Your task to perform on an android device: see creations saved in the google photos Image 0: 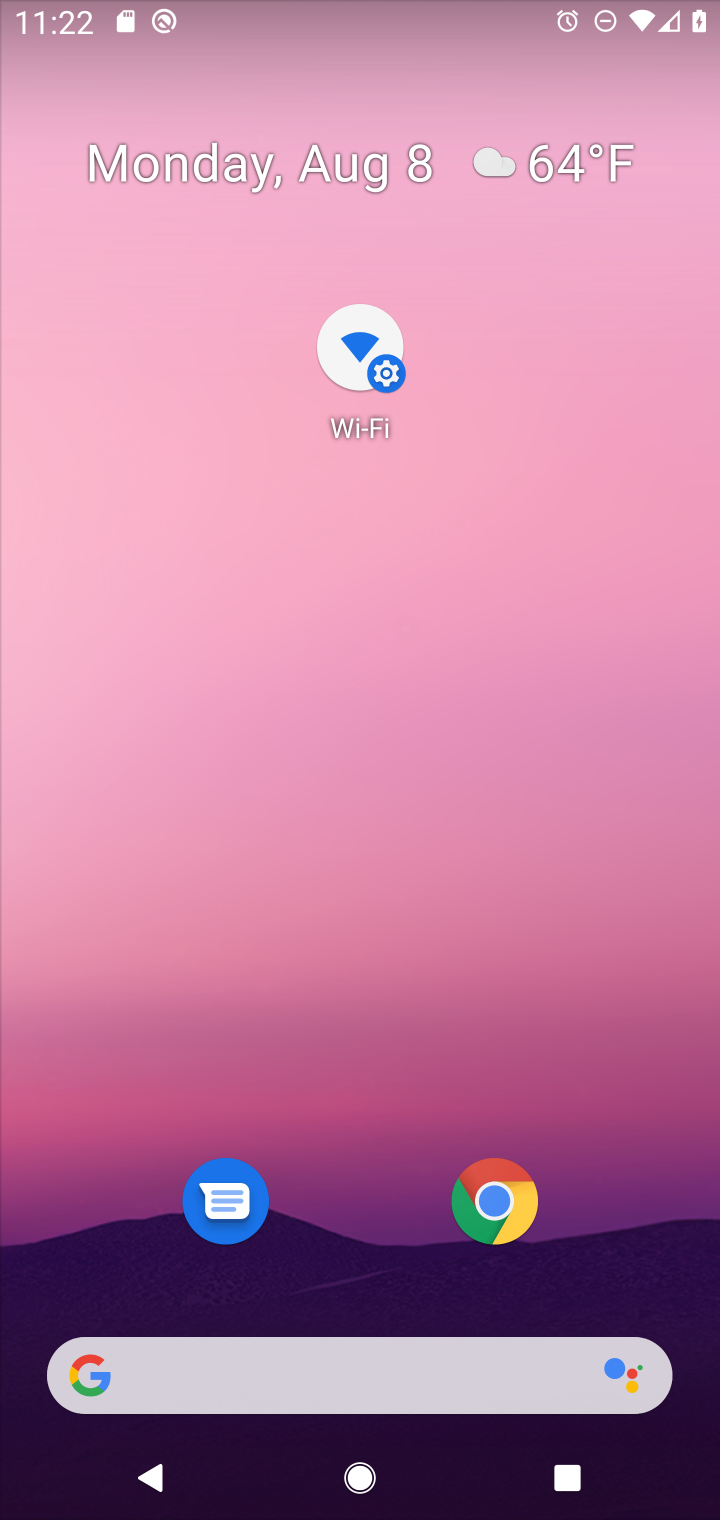
Step 0: press home button
Your task to perform on an android device: see creations saved in the google photos Image 1: 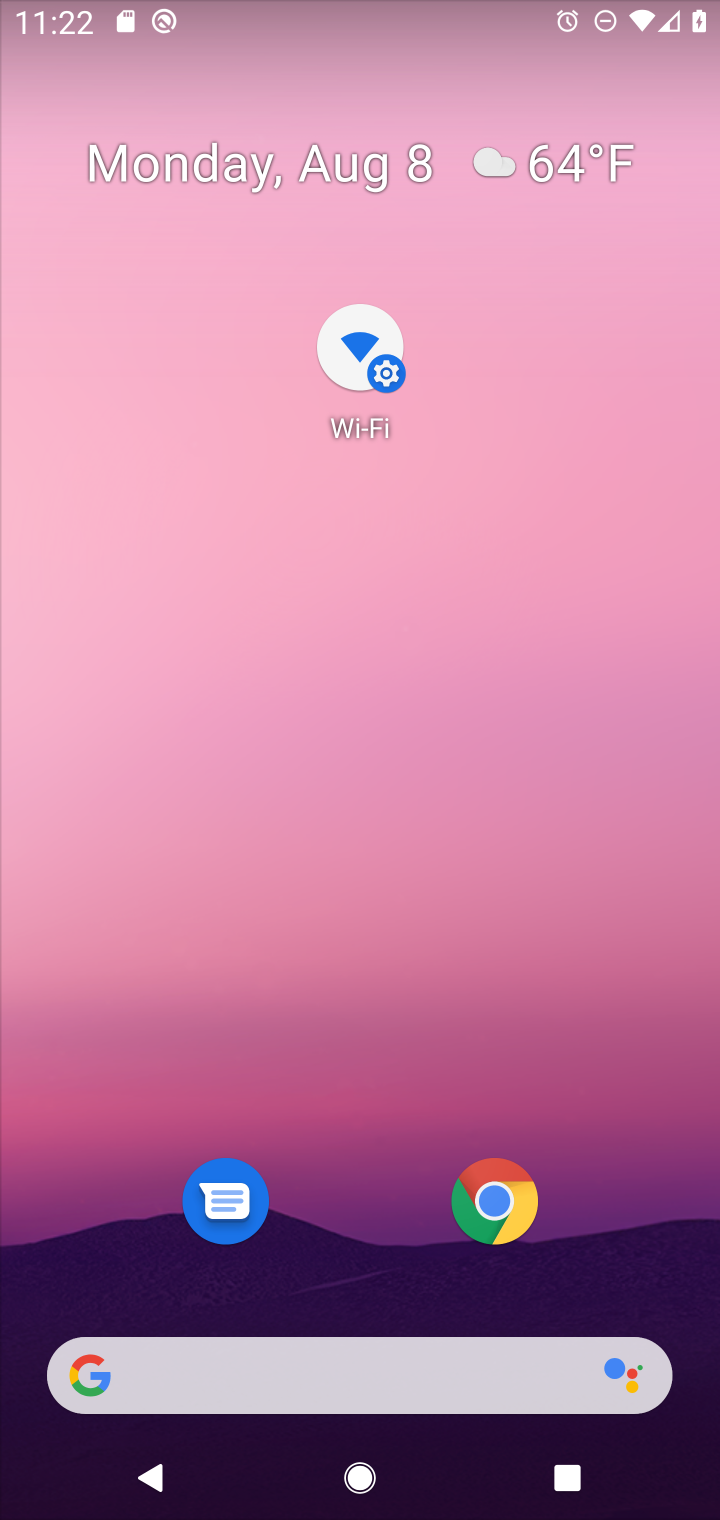
Step 1: drag from (557, 1282) to (564, 258)
Your task to perform on an android device: see creations saved in the google photos Image 2: 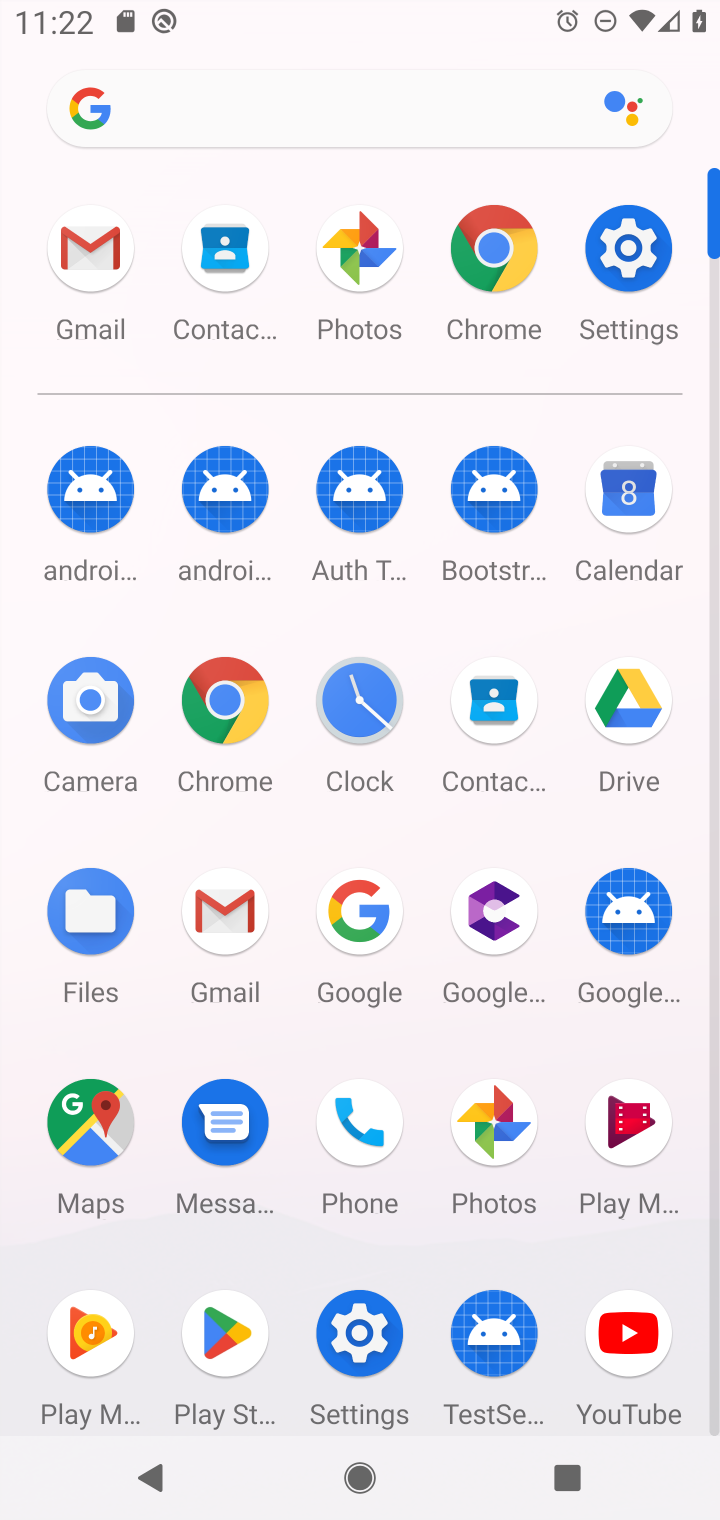
Step 2: click (487, 1112)
Your task to perform on an android device: see creations saved in the google photos Image 3: 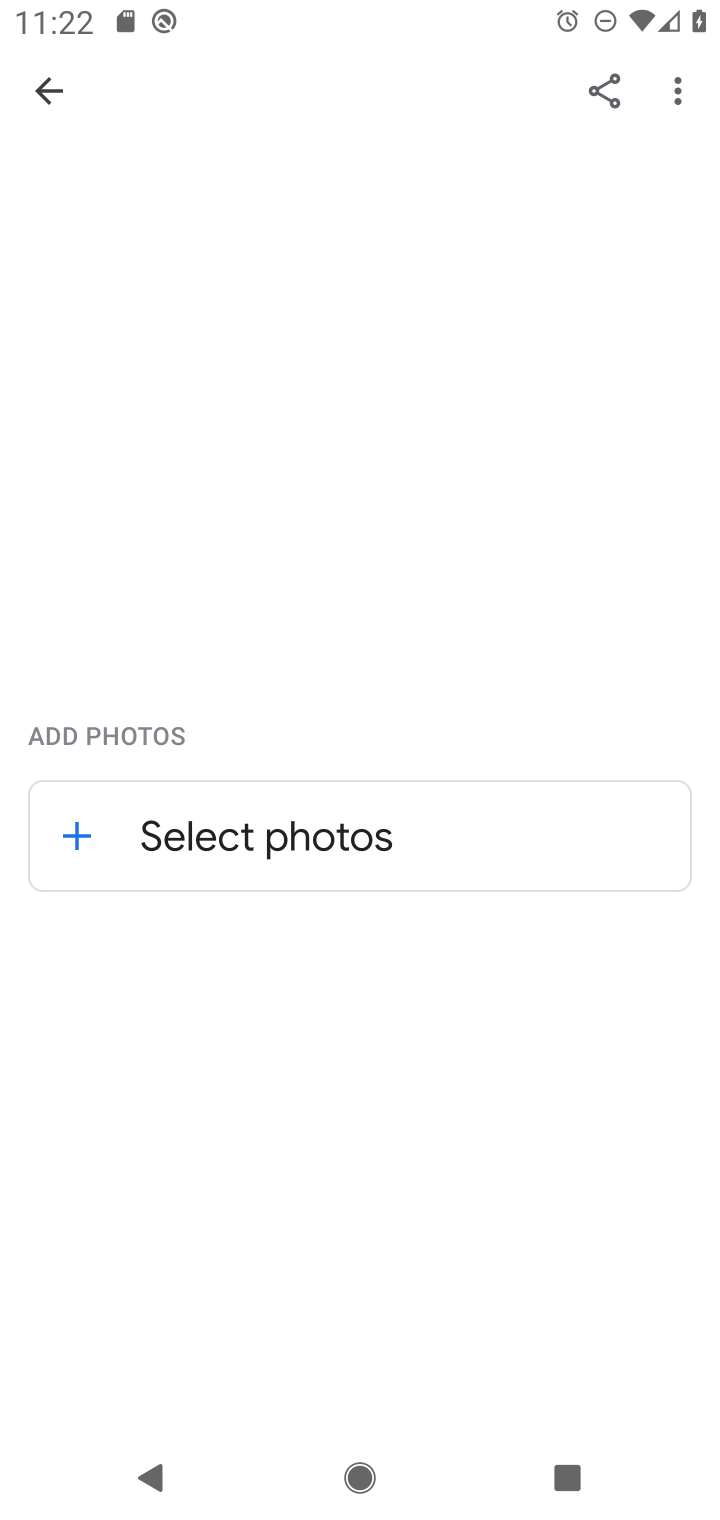
Step 3: press back button
Your task to perform on an android device: see creations saved in the google photos Image 4: 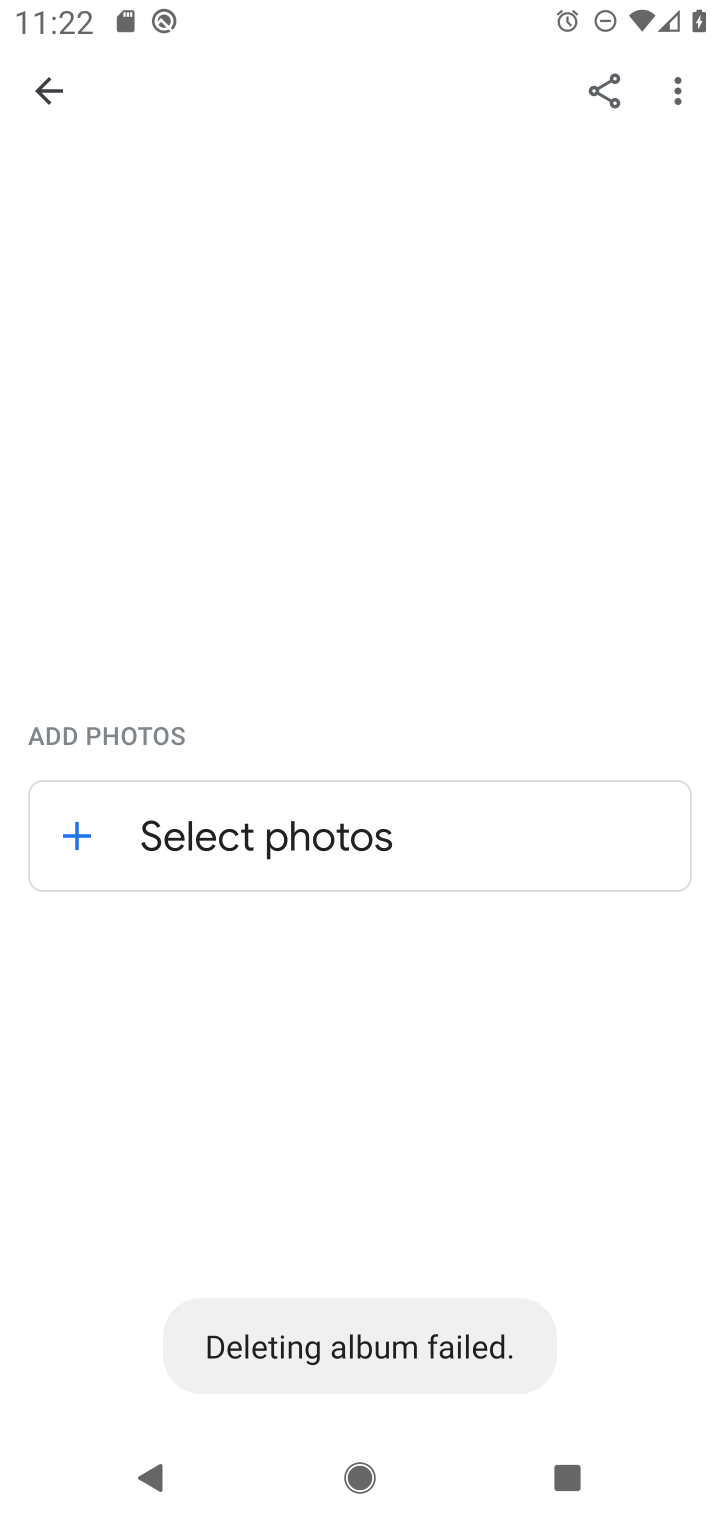
Step 4: press back button
Your task to perform on an android device: see creations saved in the google photos Image 5: 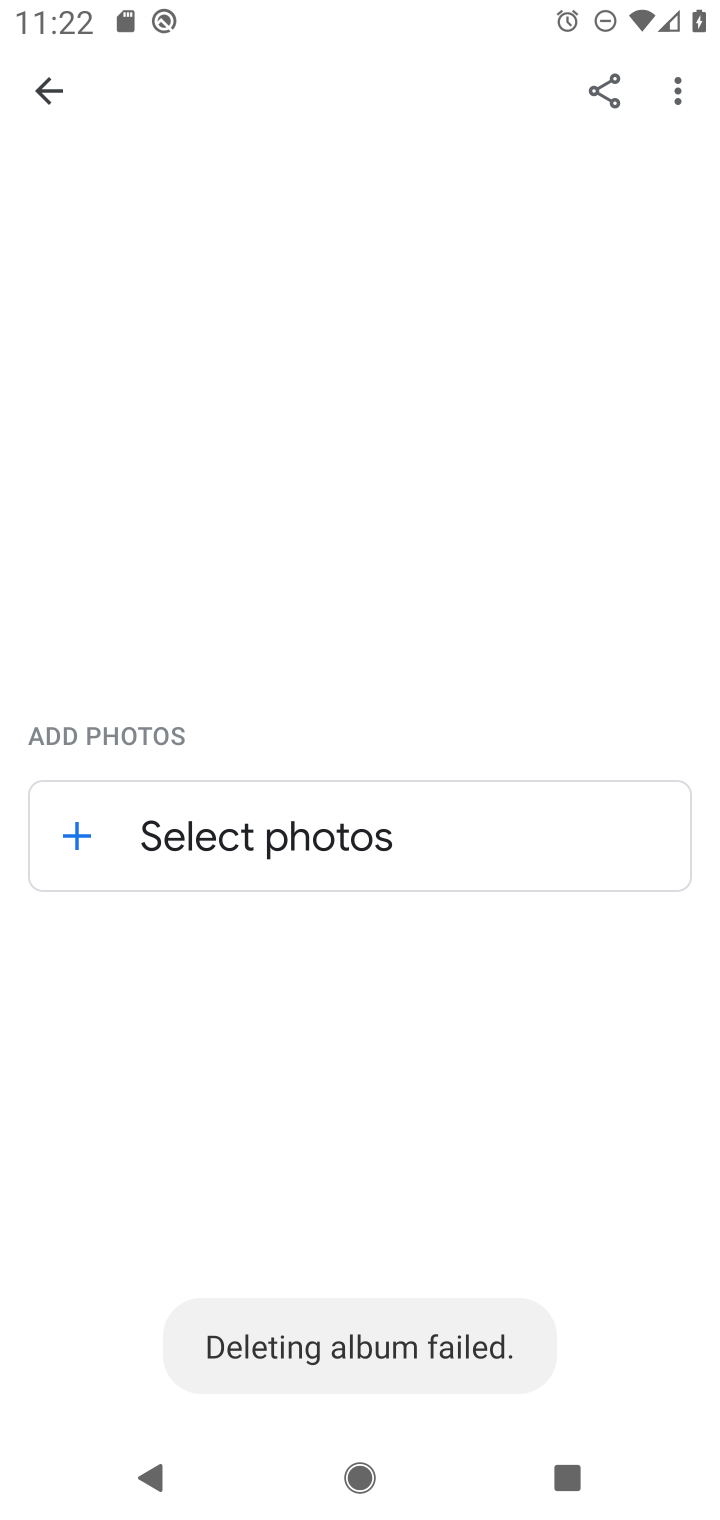
Step 5: press back button
Your task to perform on an android device: see creations saved in the google photos Image 6: 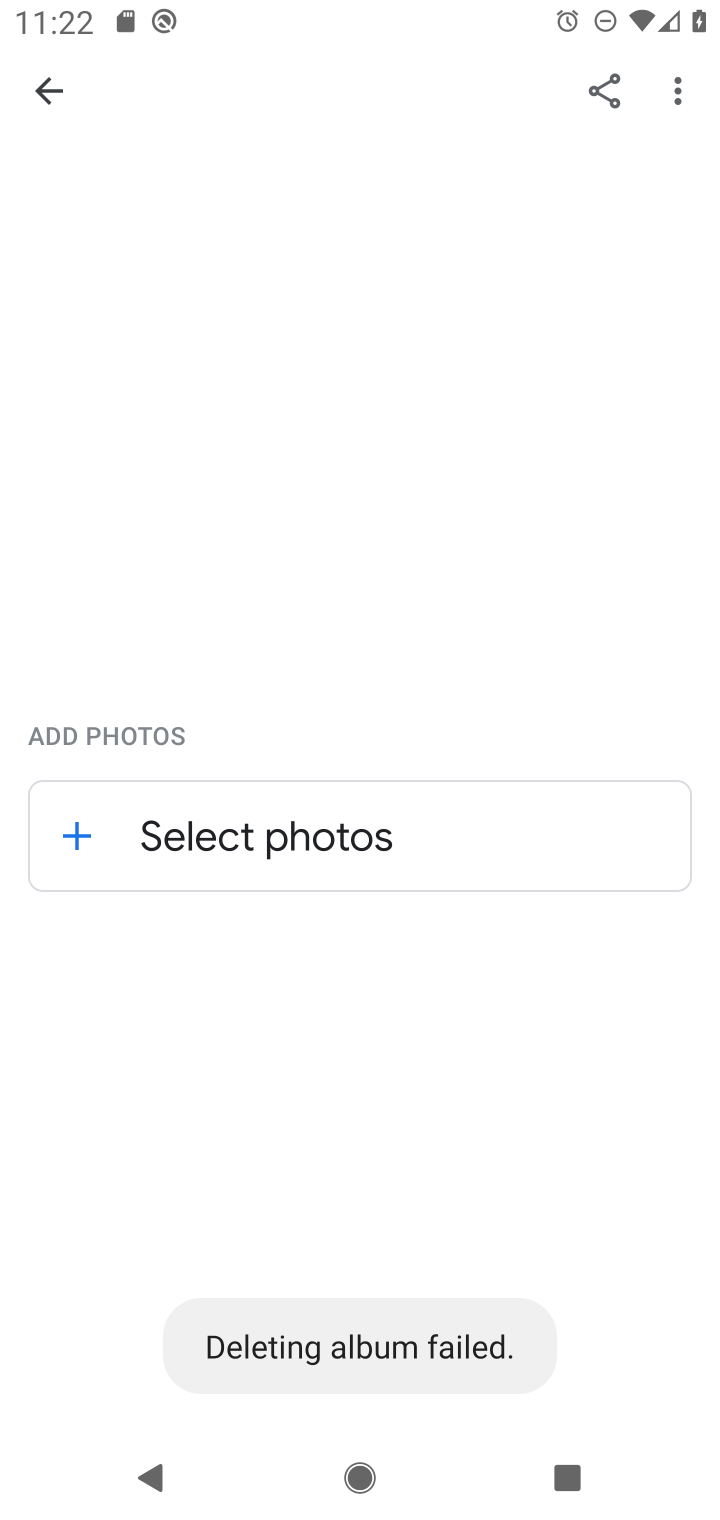
Step 6: press back button
Your task to perform on an android device: see creations saved in the google photos Image 7: 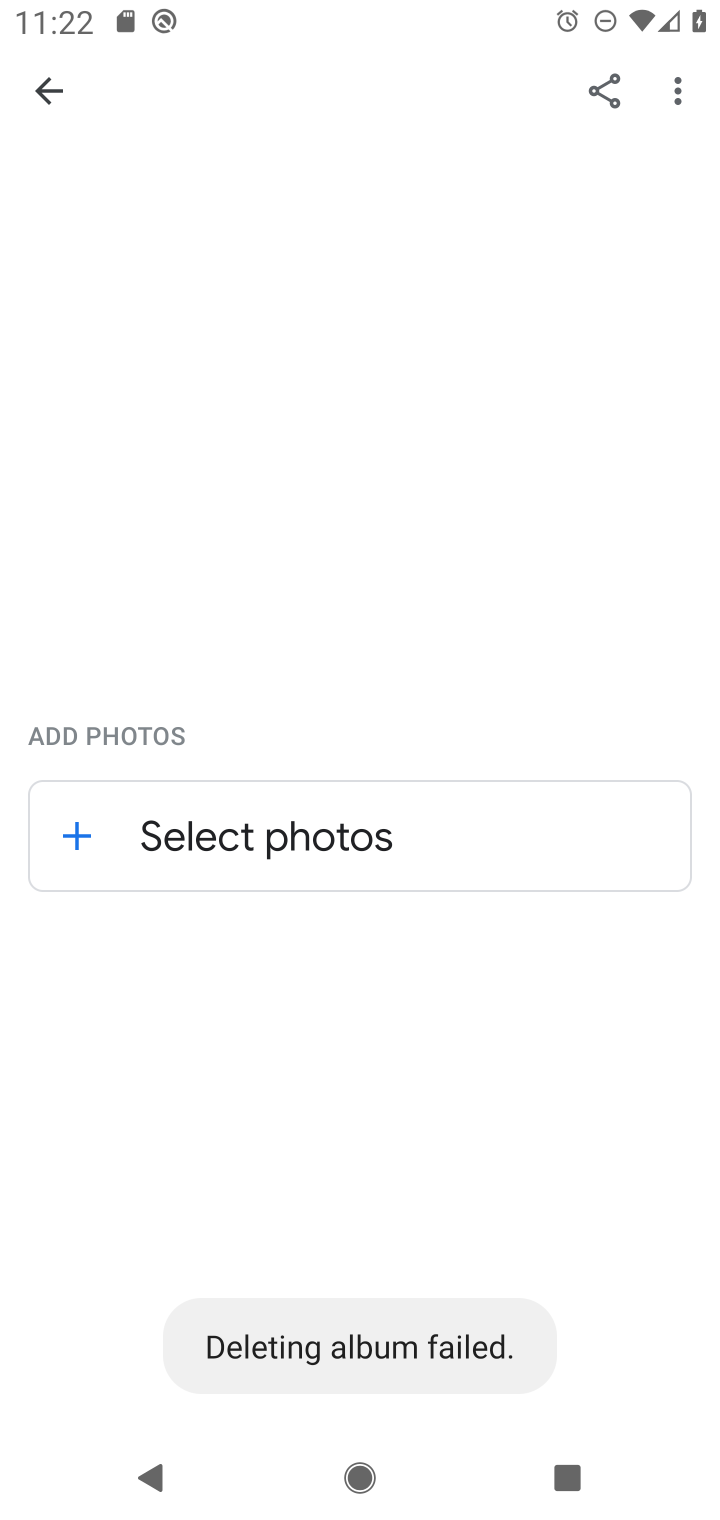
Step 7: click (33, 77)
Your task to perform on an android device: see creations saved in the google photos Image 8: 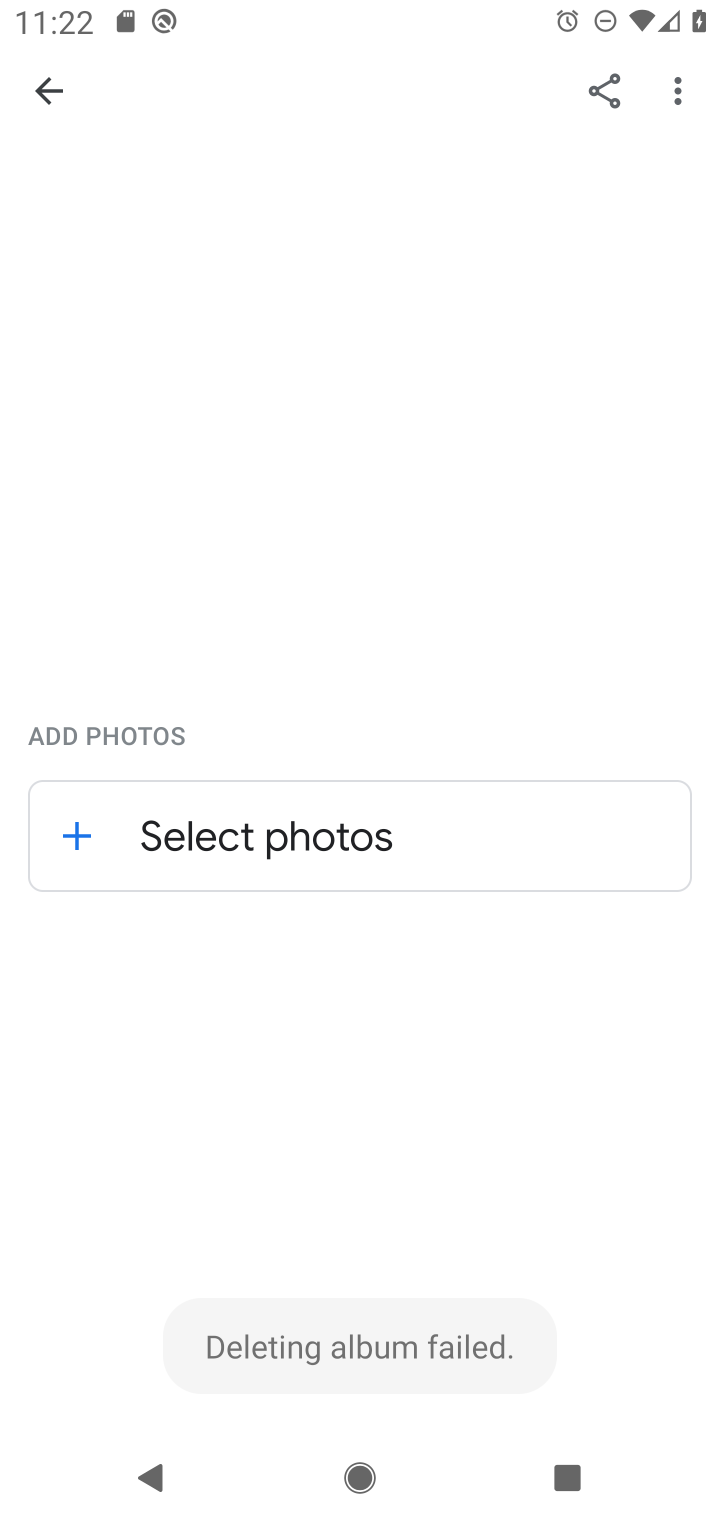
Step 8: task complete